Your task to perform on an android device: Open Reddit.com Image 0: 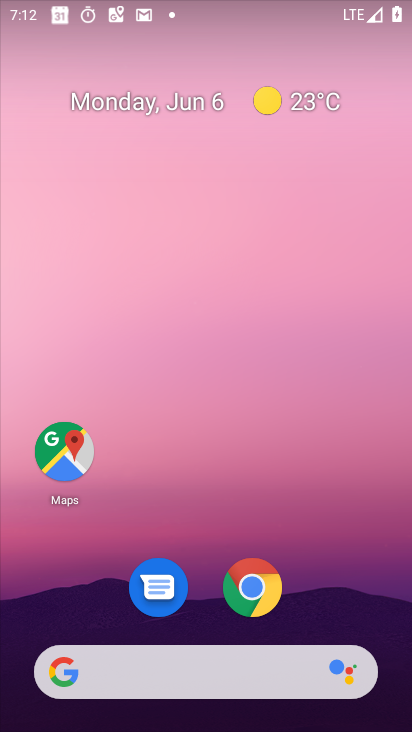
Step 0: drag from (393, 642) to (294, 125)
Your task to perform on an android device: Open Reddit.com Image 1: 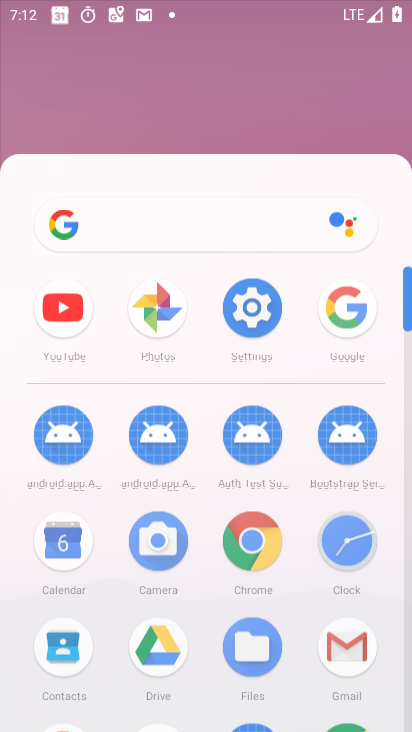
Step 1: click (276, 71)
Your task to perform on an android device: Open Reddit.com Image 2: 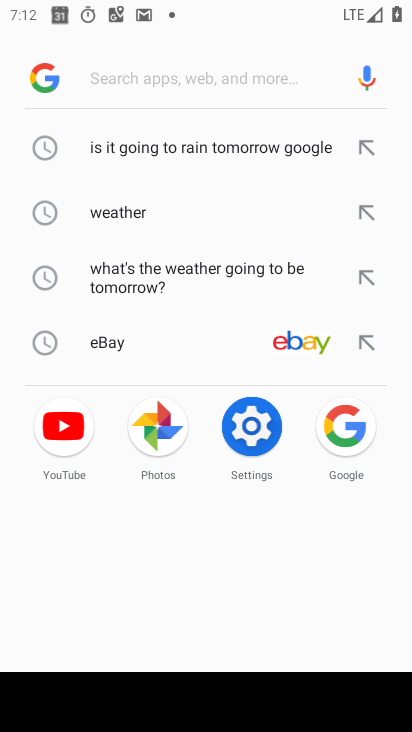
Step 2: click (63, 596)
Your task to perform on an android device: Open Reddit.com Image 3: 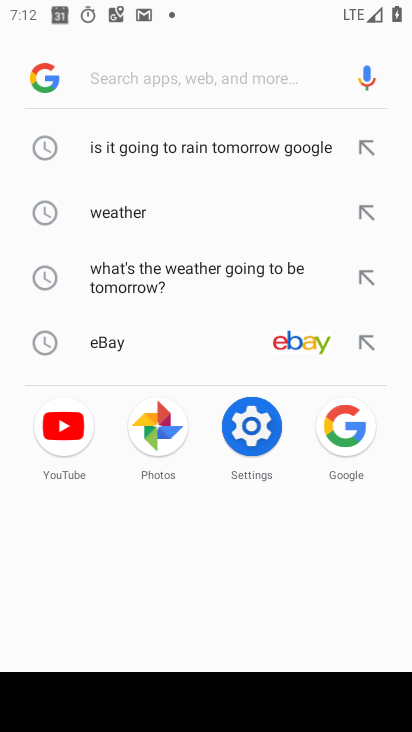
Step 3: press home button
Your task to perform on an android device: Open Reddit.com Image 4: 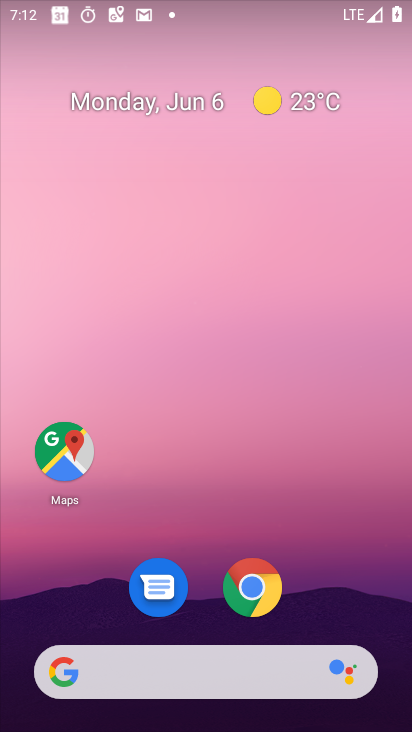
Step 4: drag from (380, 645) to (293, 123)
Your task to perform on an android device: Open Reddit.com Image 5: 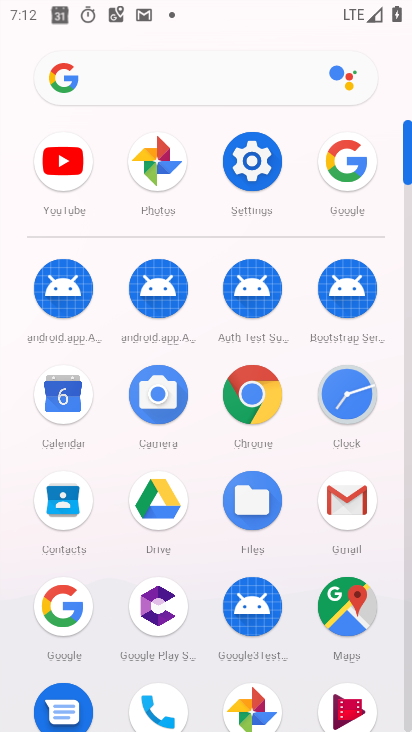
Step 5: click (50, 597)
Your task to perform on an android device: Open Reddit.com Image 6: 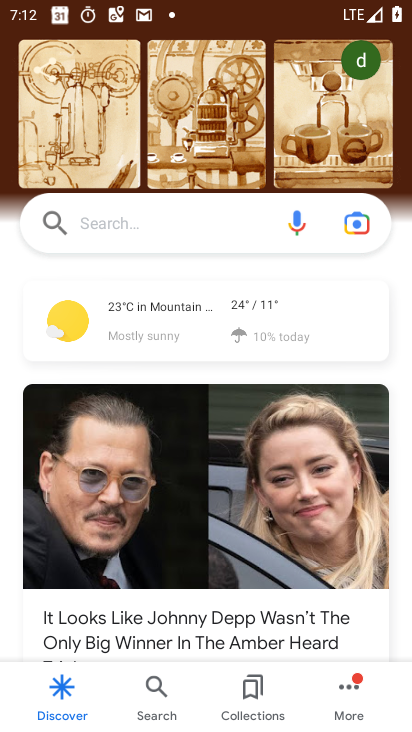
Step 6: click (126, 227)
Your task to perform on an android device: Open Reddit.com Image 7: 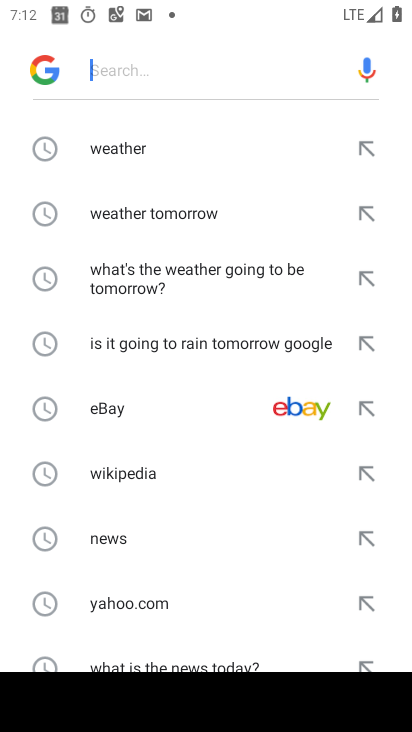
Step 7: drag from (170, 592) to (170, 145)
Your task to perform on an android device: Open Reddit.com Image 8: 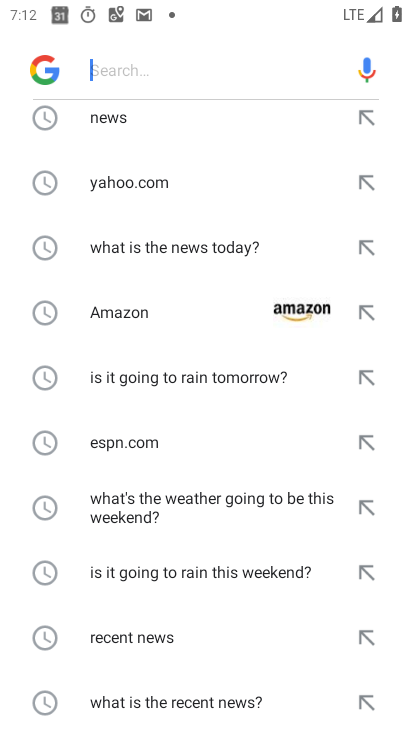
Step 8: drag from (129, 610) to (98, 160)
Your task to perform on an android device: Open Reddit.com Image 9: 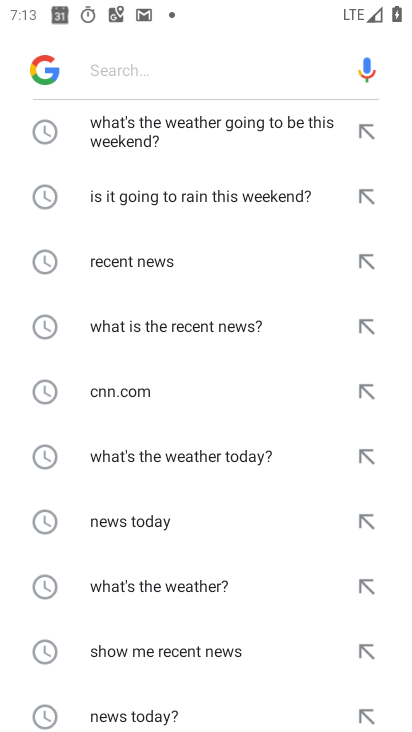
Step 9: drag from (157, 685) to (147, 175)
Your task to perform on an android device: Open Reddit.com Image 10: 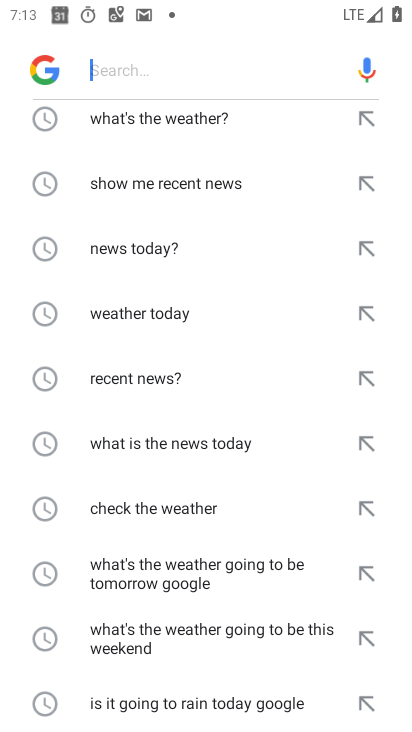
Step 10: drag from (163, 616) to (137, 123)
Your task to perform on an android device: Open Reddit.com Image 11: 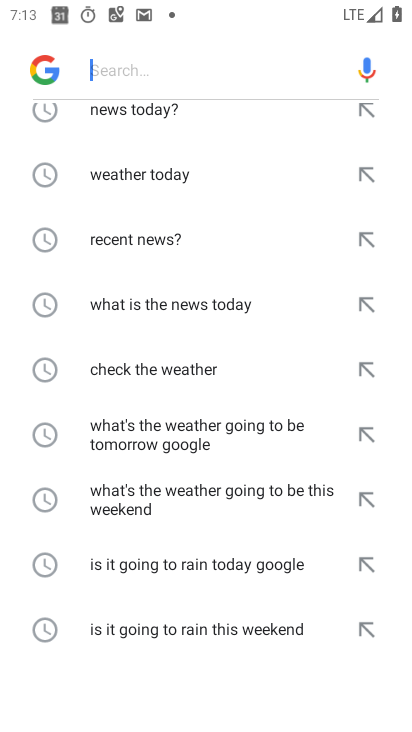
Step 11: drag from (137, 123) to (141, 695)
Your task to perform on an android device: Open Reddit.com Image 12: 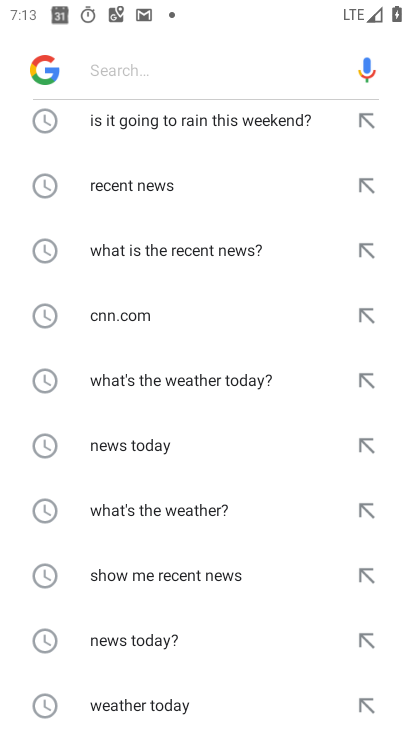
Step 12: drag from (161, 215) to (131, 725)
Your task to perform on an android device: Open Reddit.com Image 13: 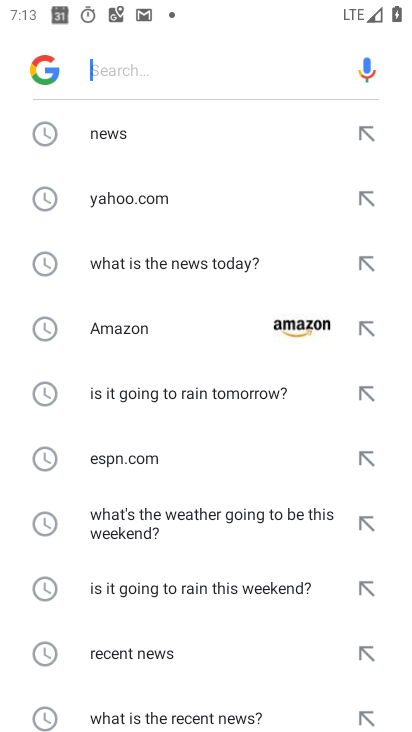
Step 13: type "reddit.com"
Your task to perform on an android device: Open Reddit.com Image 14: 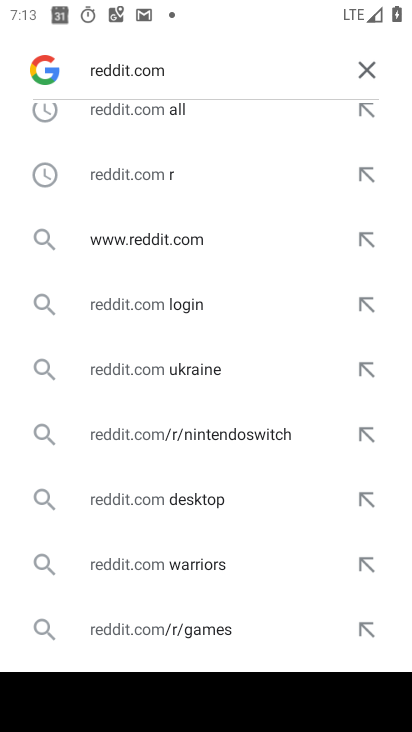
Step 14: drag from (152, 135) to (107, 566)
Your task to perform on an android device: Open Reddit.com Image 15: 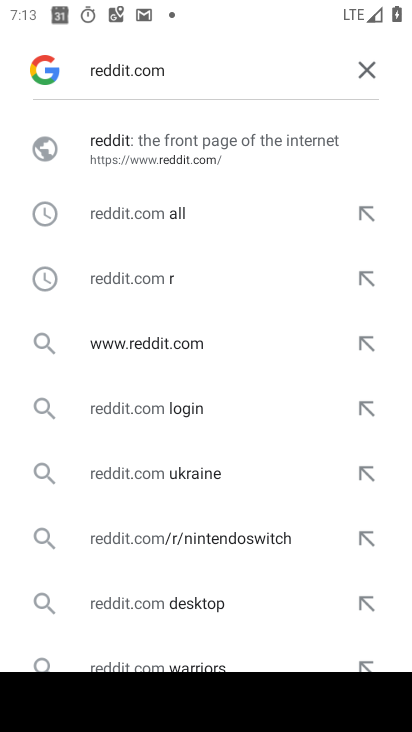
Step 15: click (156, 142)
Your task to perform on an android device: Open Reddit.com Image 16: 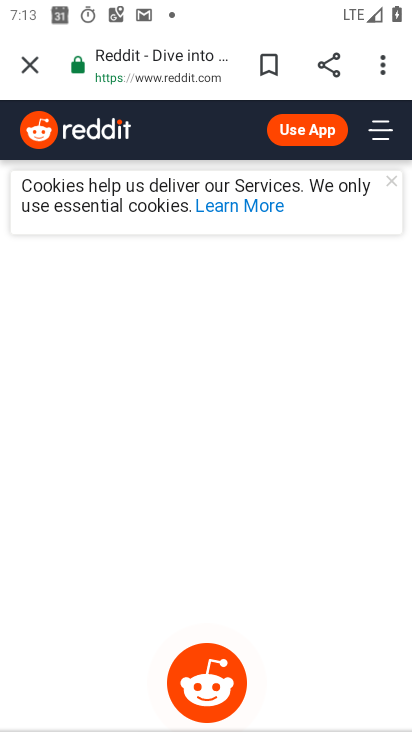
Step 16: task complete